Your task to perform on an android device: Open internet settings Image 0: 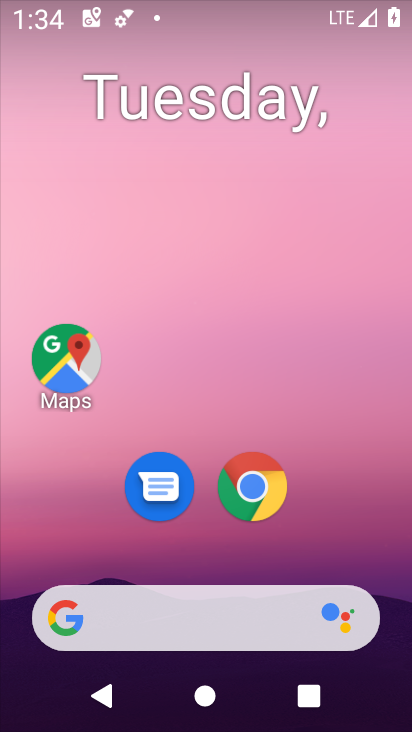
Step 0: press home button
Your task to perform on an android device: Open internet settings Image 1: 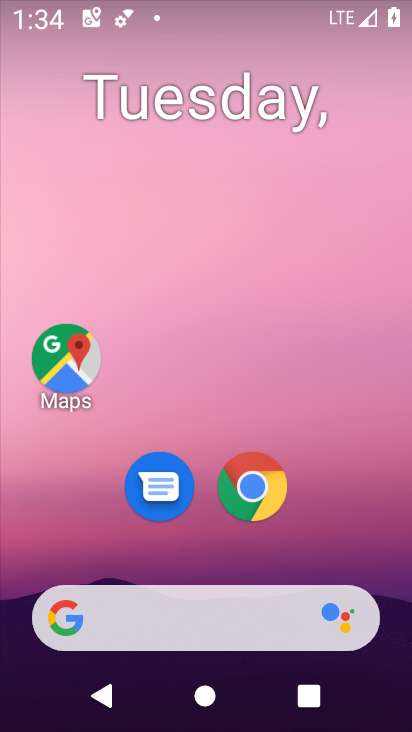
Step 1: drag from (352, 526) to (358, 163)
Your task to perform on an android device: Open internet settings Image 2: 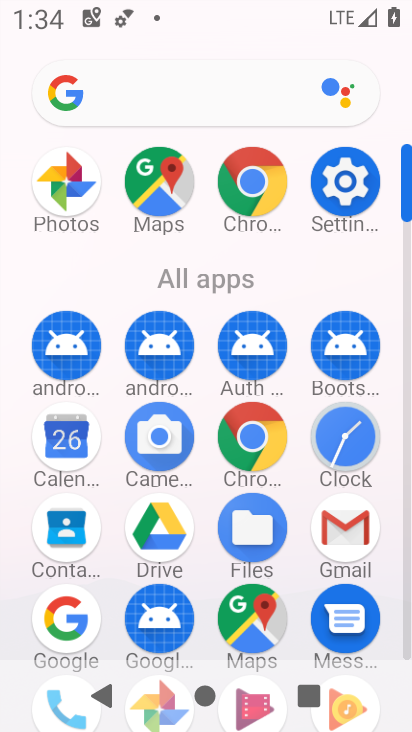
Step 2: click (353, 178)
Your task to perform on an android device: Open internet settings Image 3: 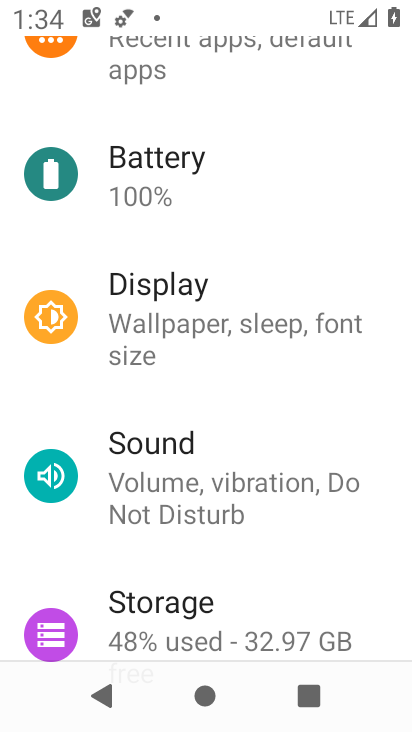
Step 3: drag from (339, 407) to (347, 289)
Your task to perform on an android device: Open internet settings Image 4: 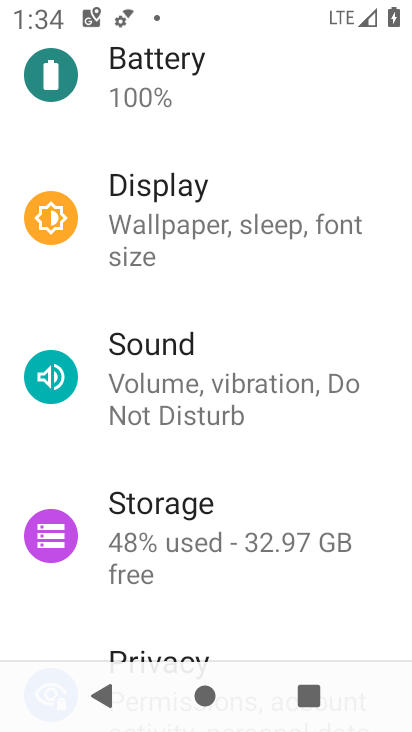
Step 4: drag from (336, 464) to (346, 368)
Your task to perform on an android device: Open internet settings Image 5: 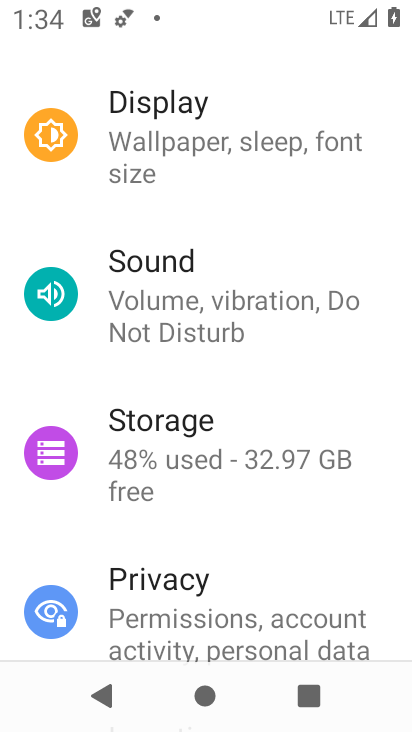
Step 5: drag from (326, 517) to (335, 390)
Your task to perform on an android device: Open internet settings Image 6: 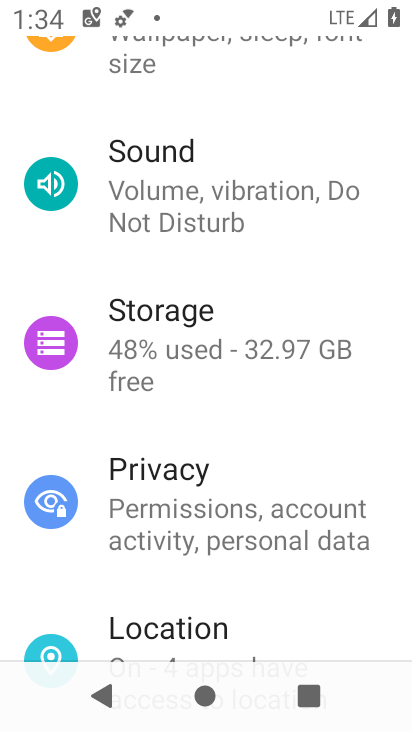
Step 6: drag from (336, 555) to (336, 424)
Your task to perform on an android device: Open internet settings Image 7: 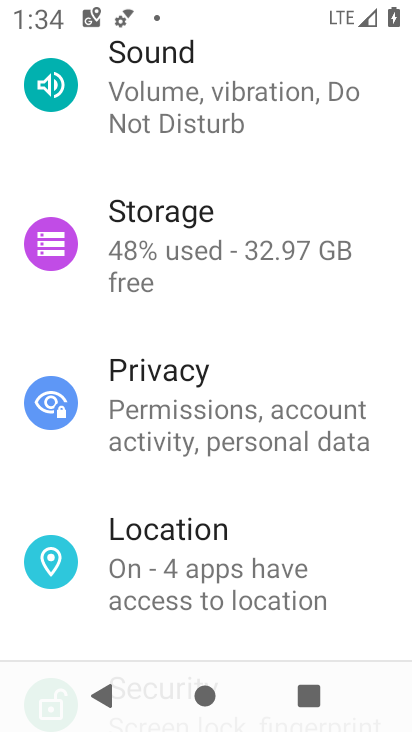
Step 7: drag from (345, 547) to (345, 448)
Your task to perform on an android device: Open internet settings Image 8: 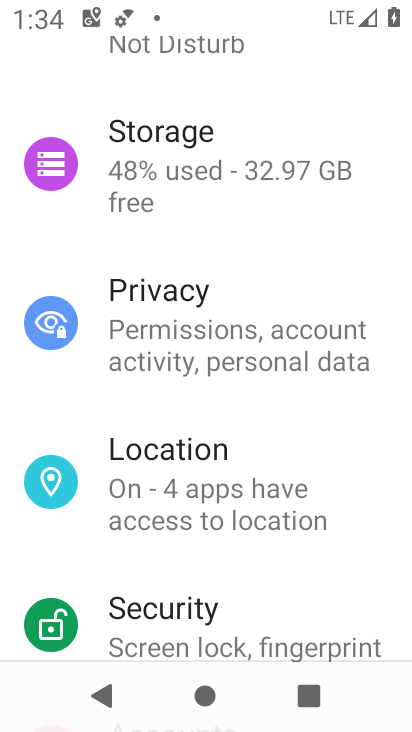
Step 8: drag from (341, 554) to (345, 432)
Your task to perform on an android device: Open internet settings Image 9: 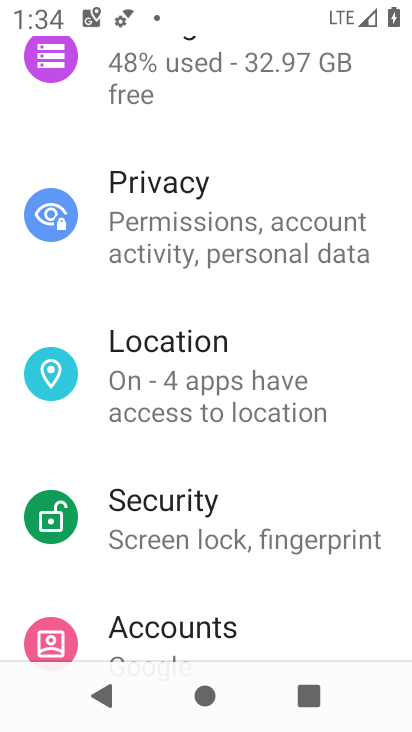
Step 9: drag from (347, 578) to (348, 450)
Your task to perform on an android device: Open internet settings Image 10: 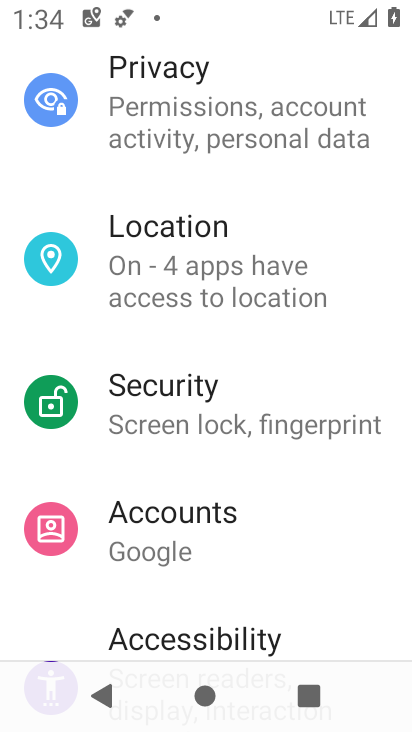
Step 10: drag from (344, 574) to (346, 451)
Your task to perform on an android device: Open internet settings Image 11: 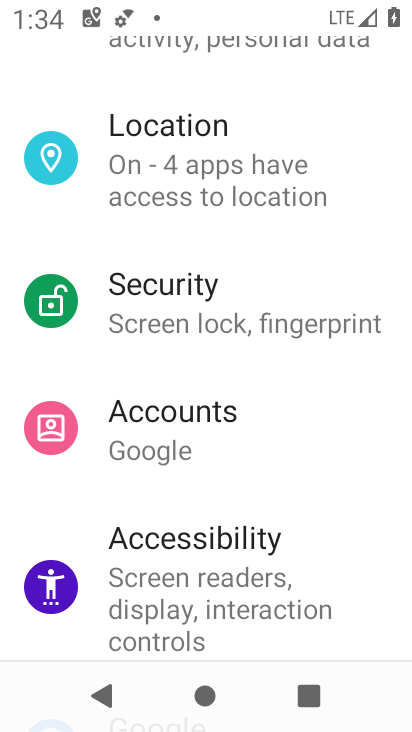
Step 11: drag from (352, 556) to (354, 441)
Your task to perform on an android device: Open internet settings Image 12: 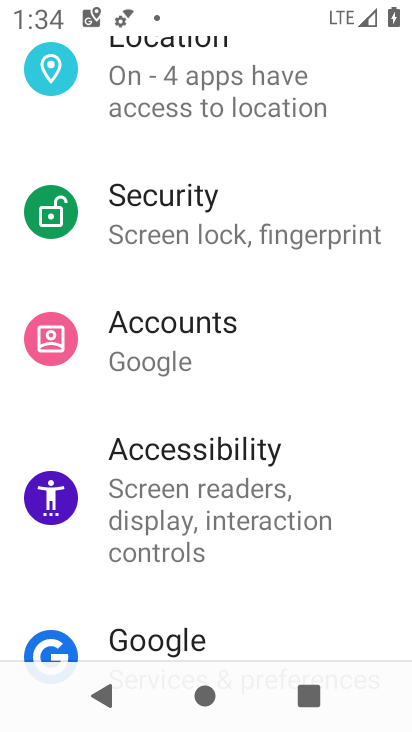
Step 12: drag from (356, 282) to (356, 351)
Your task to perform on an android device: Open internet settings Image 13: 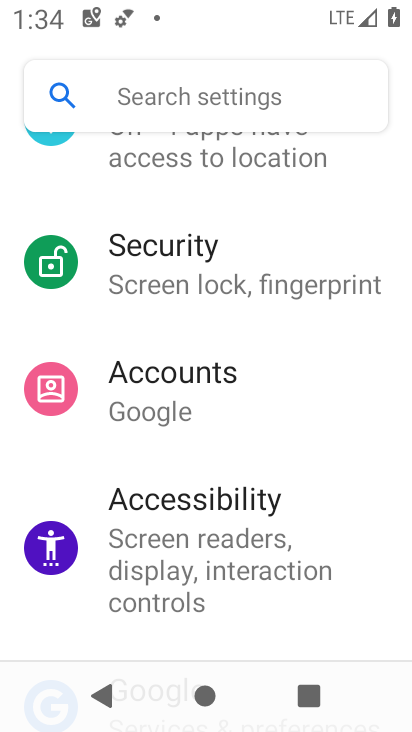
Step 13: drag from (365, 201) to (370, 374)
Your task to perform on an android device: Open internet settings Image 14: 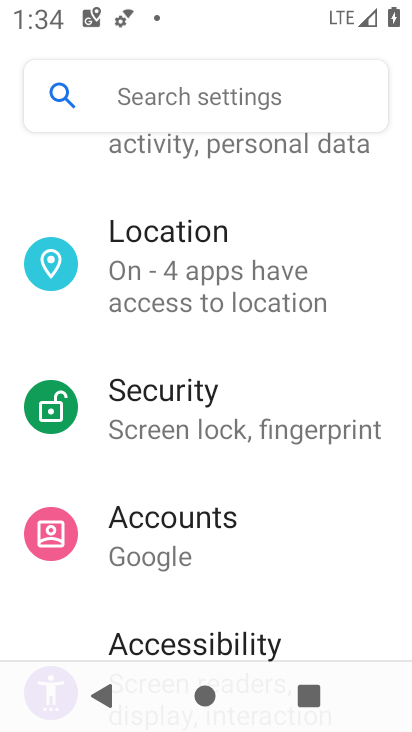
Step 14: drag from (358, 232) to (359, 400)
Your task to perform on an android device: Open internet settings Image 15: 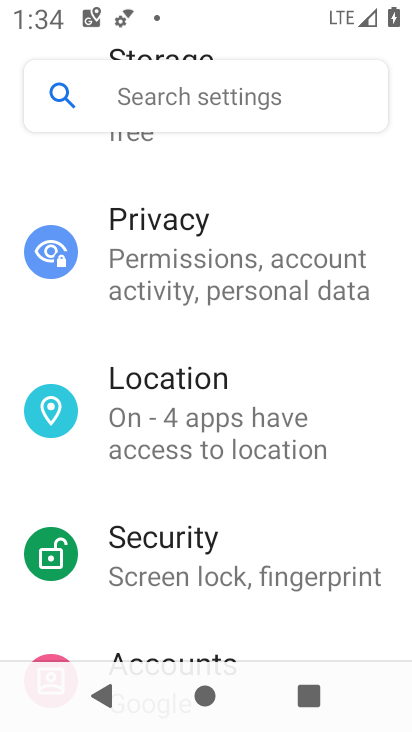
Step 15: drag from (358, 195) to (356, 371)
Your task to perform on an android device: Open internet settings Image 16: 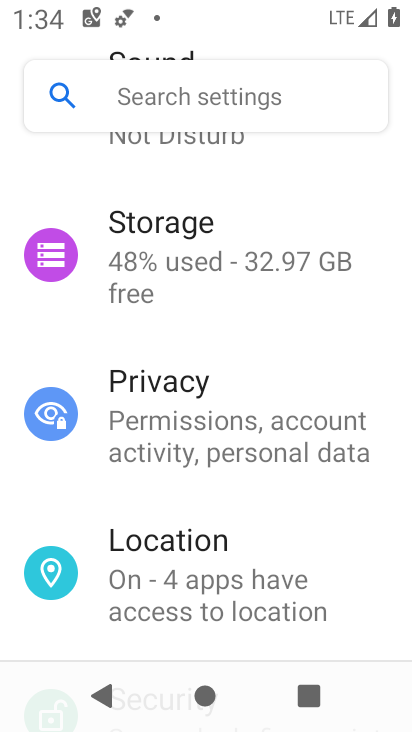
Step 16: drag from (348, 214) to (348, 401)
Your task to perform on an android device: Open internet settings Image 17: 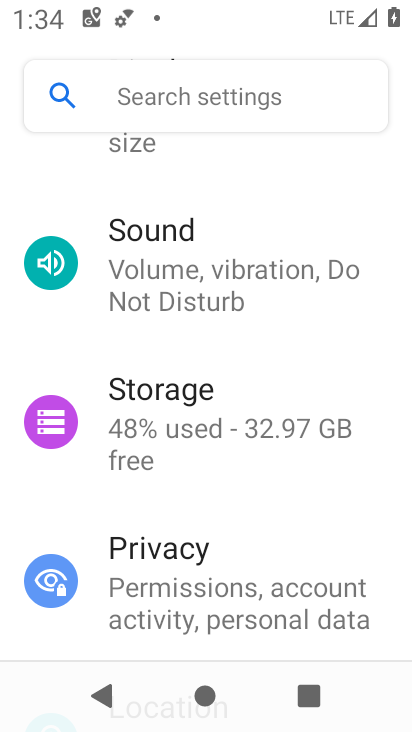
Step 17: drag from (348, 174) to (335, 366)
Your task to perform on an android device: Open internet settings Image 18: 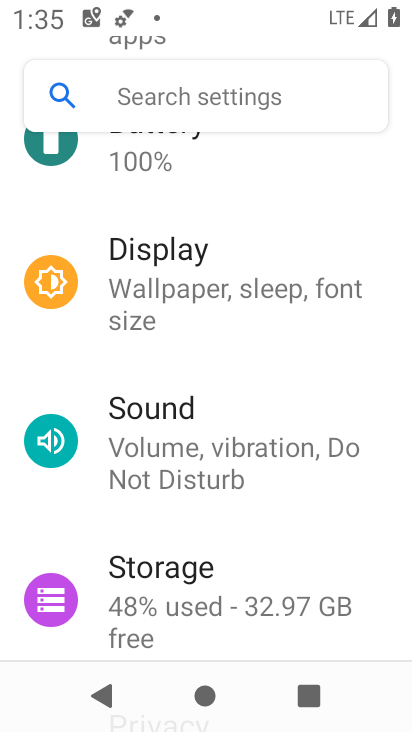
Step 18: drag from (314, 169) to (307, 386)
Your task to perform on an android device: Open internet settings Image 19: 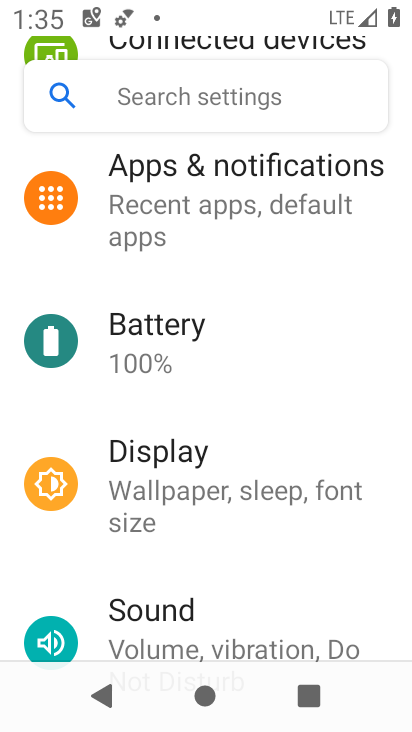
Step 19: drag from (344, 176) to (320, 416)
Your task to perform on an android device: Open internet settings Image 20: 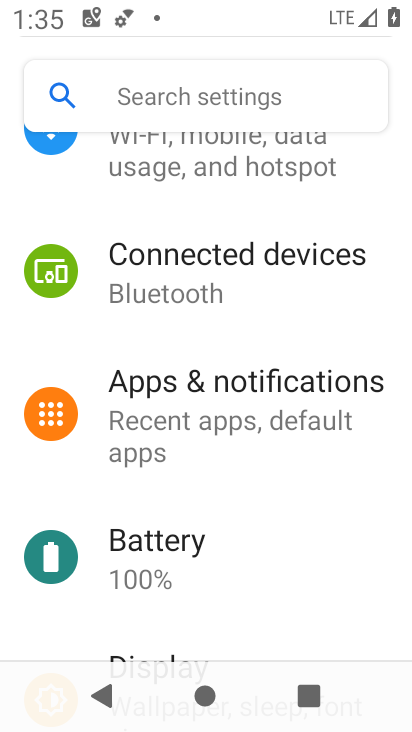
Step 20: drag from (319, 183) to (303, 351)
Your task to perform on an android device: Open internet settings Image 21: 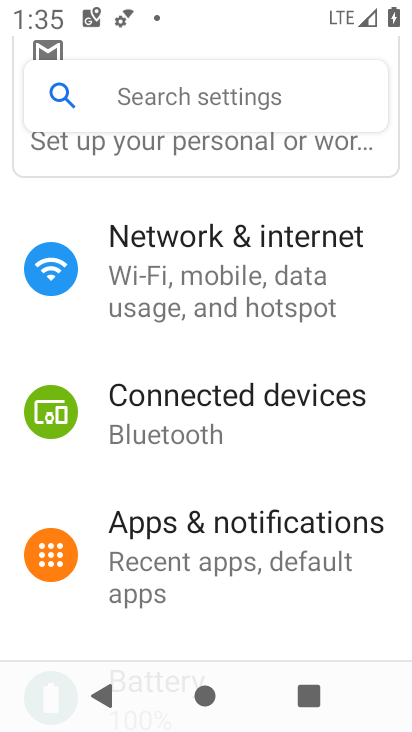
Step 21: click (270, 252)
Your task to perform on an android device: Open internet settings Image 22: 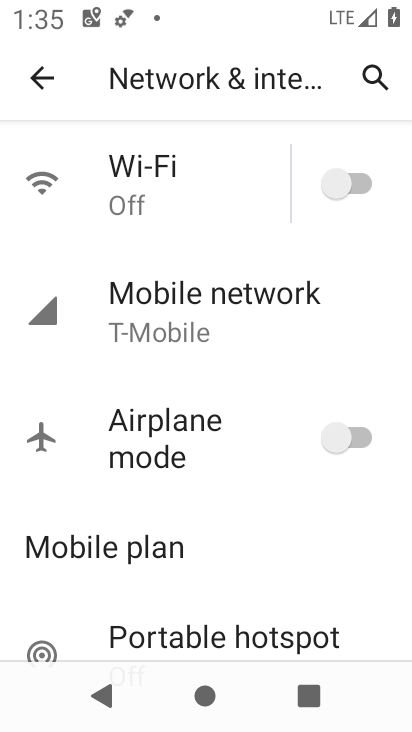
Step 22: task complete